Your task to perform on an android device: What's the weather today? Image 0: 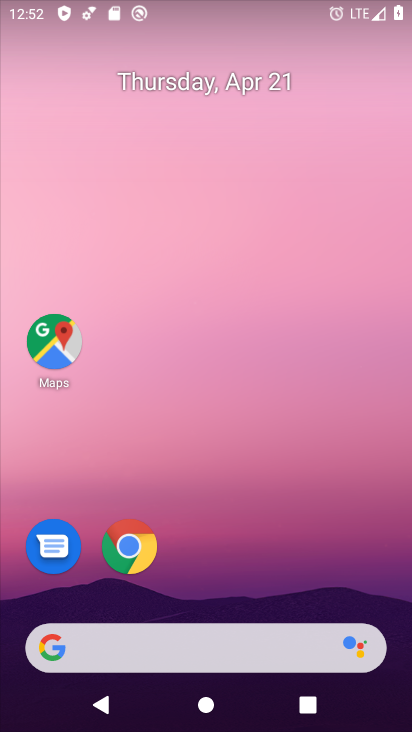
Step 0: click (142, 545)
Your task to perform on an android device: What's the weather today? Image 1: 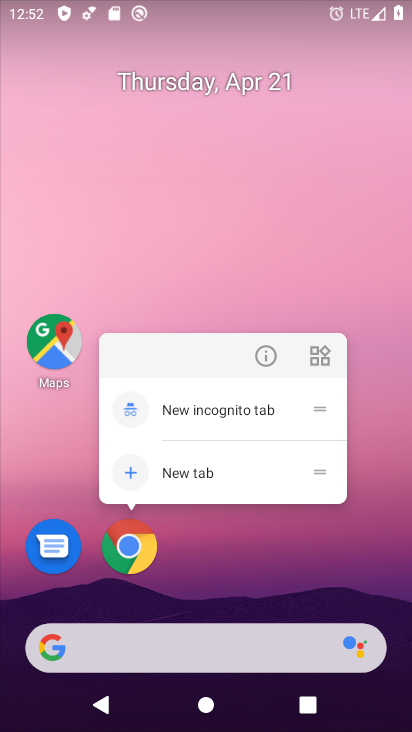
Step 1: click (143, 548)
Your task to perform on an android device: What's the weather today? Image 2: 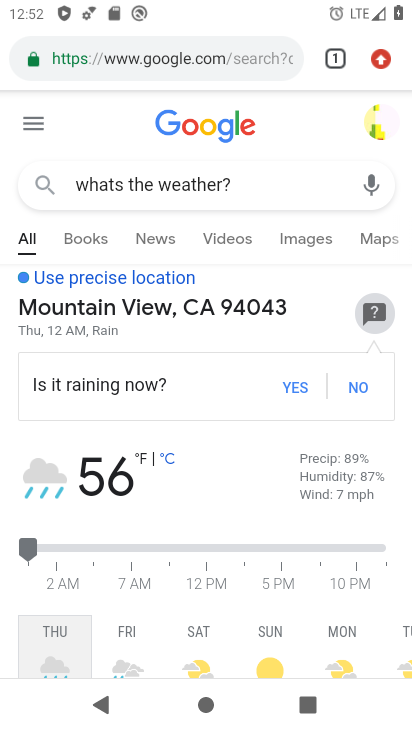
Step 2: task complete